Your task to perform on an android device: Search for vegetarian restaurants on Maps Image 0: 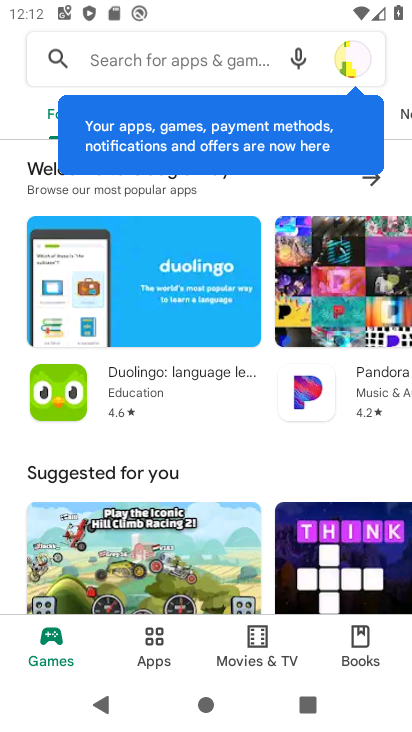
Step 0: press home button
Your task to perform on an android device: Search for vegetarian restaurants on Maps Image 1: 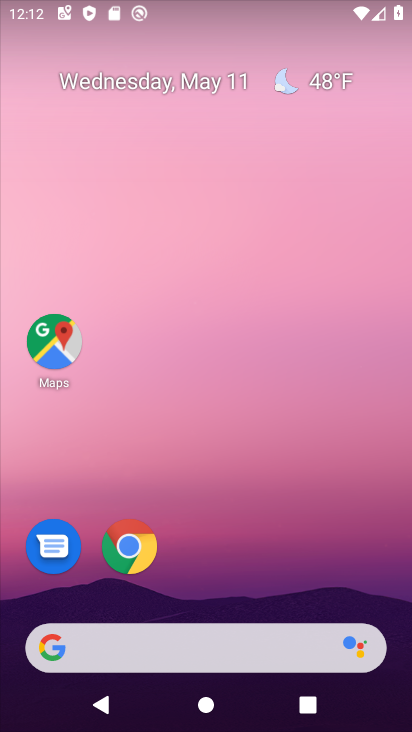
Step 1: drag from (137, 655) to (240, 224)
Your task to perform on an android device: Search for vegetarian restaurants on Maps Image 2: 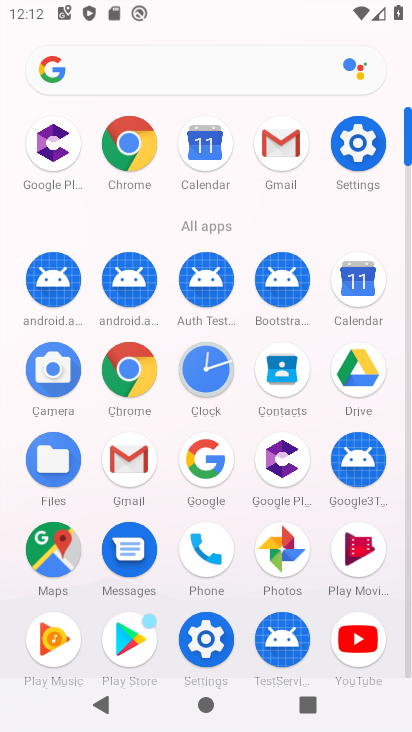
Step 2: click (56, 551)
Your task to perform on an android device: Search for vegetarian restaurants on Maps Image 3: 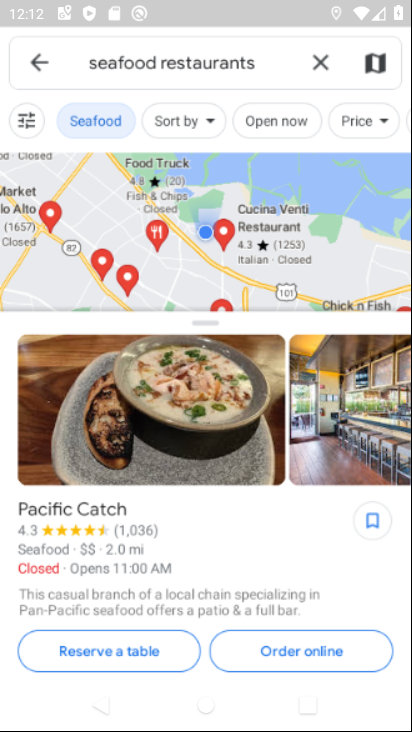
Step 3: click (314, 67)
Your task to perform on an android device: Search for vegetarian restaurants on Maps Image 4: 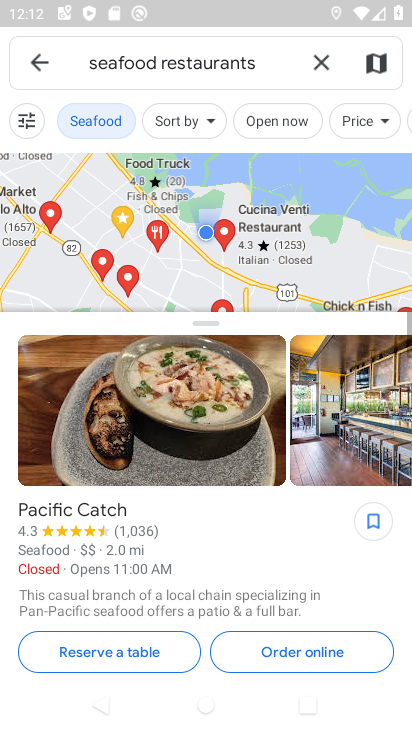
Step 4: click (316, 58)
Your task to perform on an android device: Search for vegetarian restaurants on Maps Image 5: 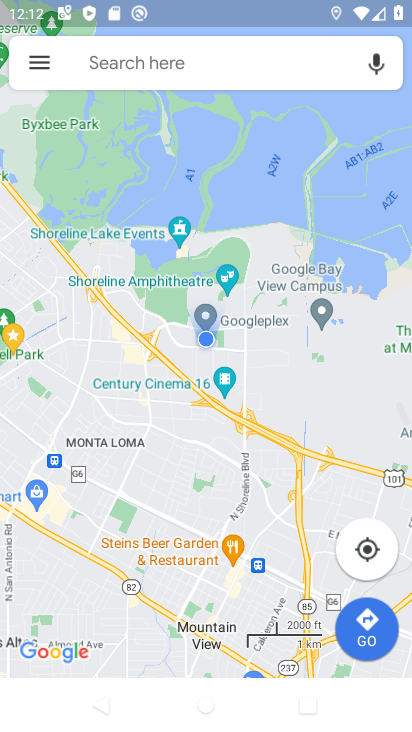
Step 5: click (164, 66)
Your task to perform on an android device: Search for vegetarian restaurants on Maps Image 6: 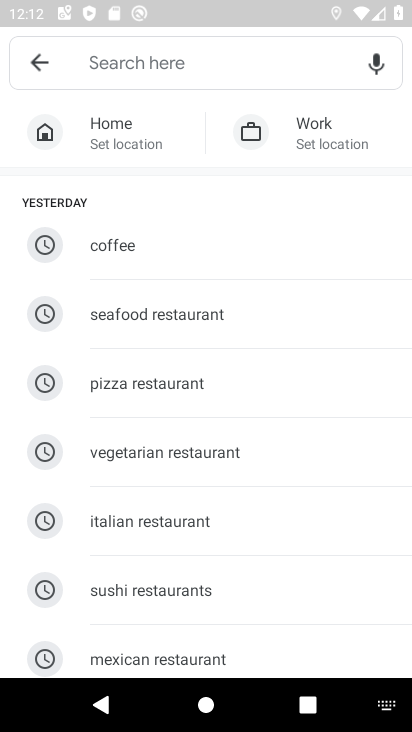
Step 6: drag from (135, 342) to (139, 414)
Your task to perform on an android device: Search for vegetarian restaurants on Maps Image 7: 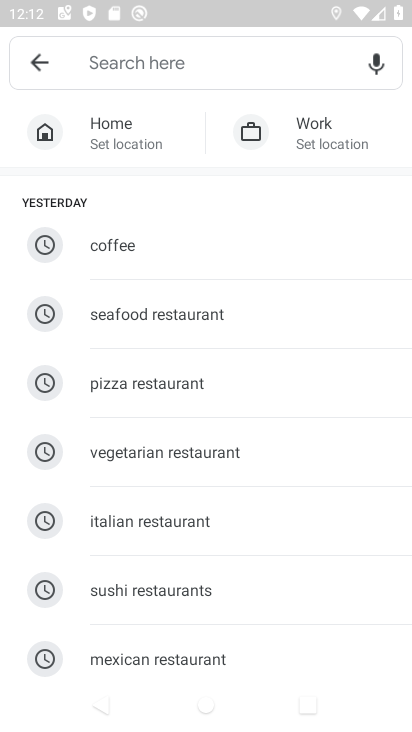
Step 7: click (141, 453)
Your task to perform on an android device: Search for vegetarian restaurants on Maps Image 8: 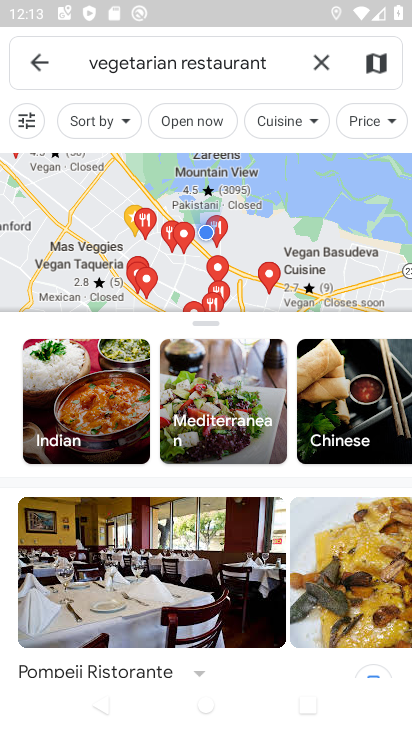
Step 8: task complete